Your task to perform on an android device: Is it going to rain tomorrow? Image 0: 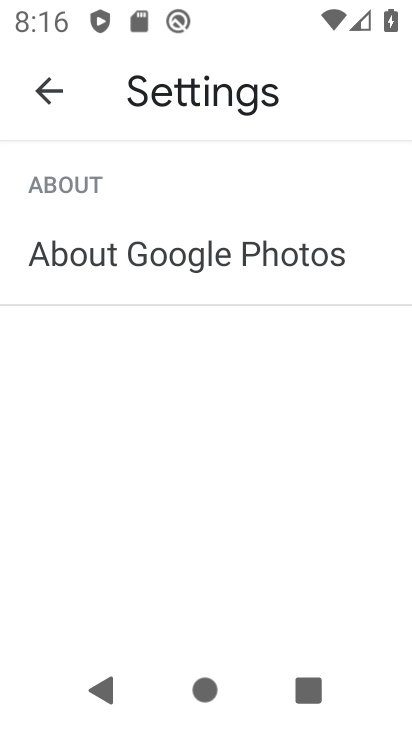
Step 0: press home button
Your task to perform on an android device: Is it going to rain tomorrow? Image 1: 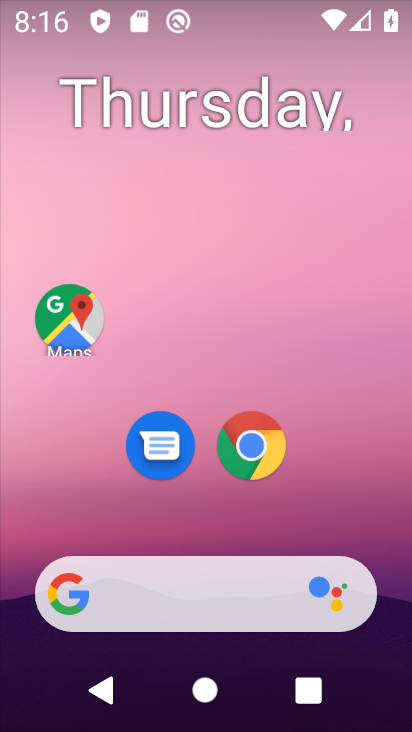
Step 1: drag from (228, 550) to (136, 5)
Your task to perform on an android device: Is it going to rain tomorrow? Image 2: 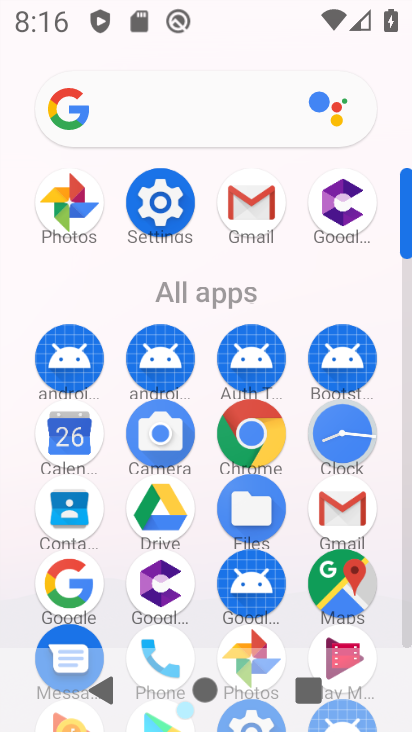
Step 2: click (77, 572)
Your task to perform on an android device: Is it going to rain tomorrow? Image 3: 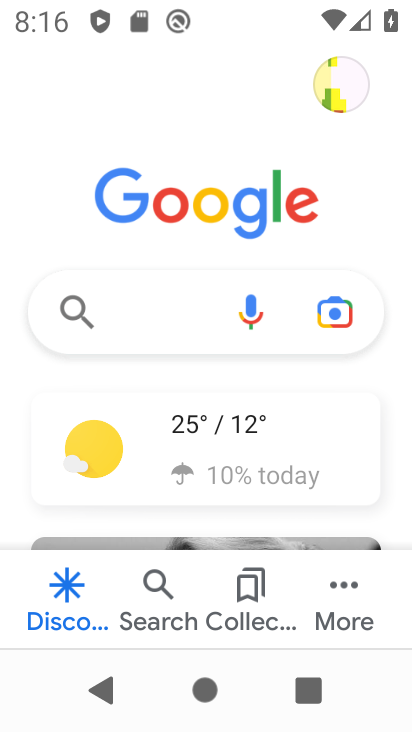
Step 3: click (169, 319)
Your task to perform on an android device: Is it going to rain tomorrow? Image 4: 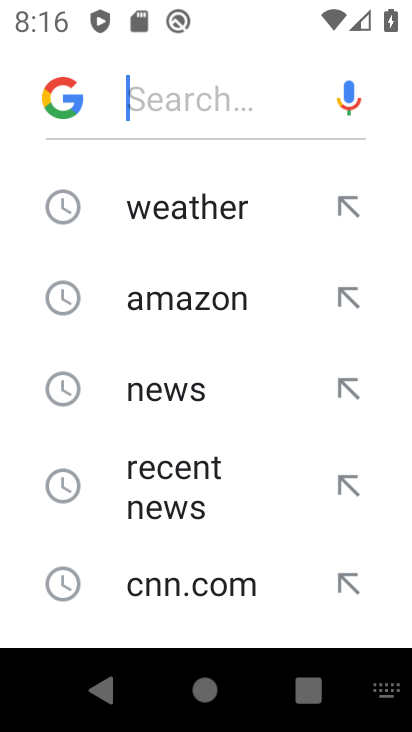
Step 4: click (185, 203)
Your task to perform on an android device: Is it going to rain tomorrow? Image 5: 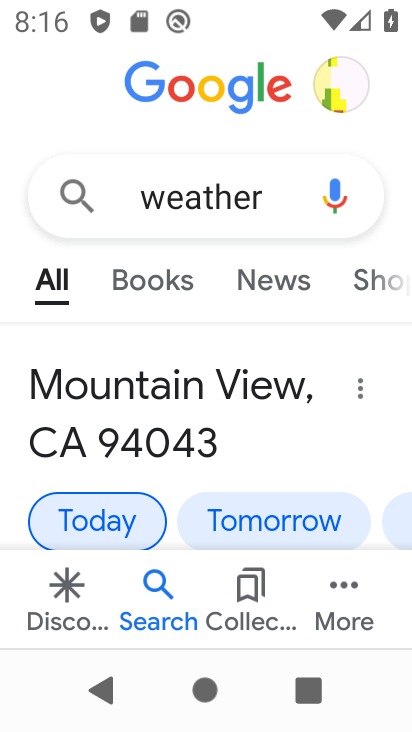
Step 5: click (243, 512)
Your task to perform on an android device: Is it going to rain tomorrow? Image 6: 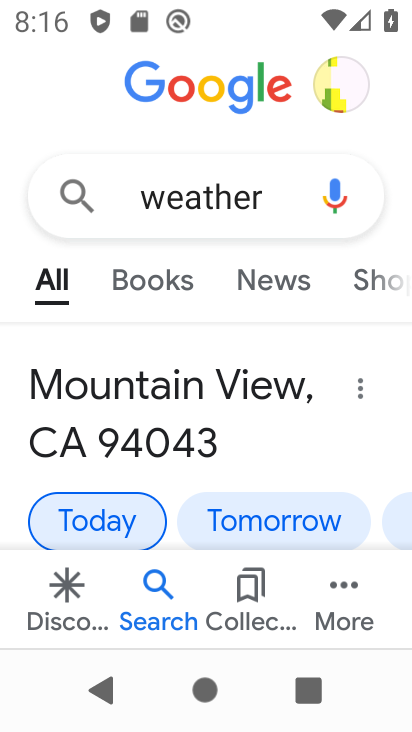
Step 6: task complete